Your task to perform on an android device: Open the Play Movies app and select the watchlist tab. Image 0: 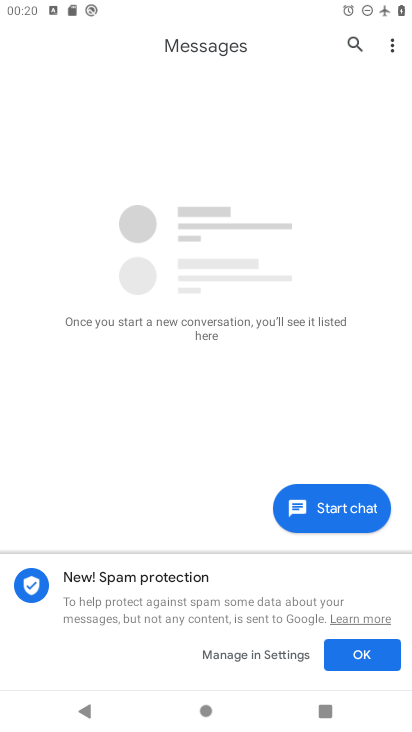
Step 0: press home button
Your task to perform on an android device: Open the Play Movies app and select the watchlist tab. Image 1: 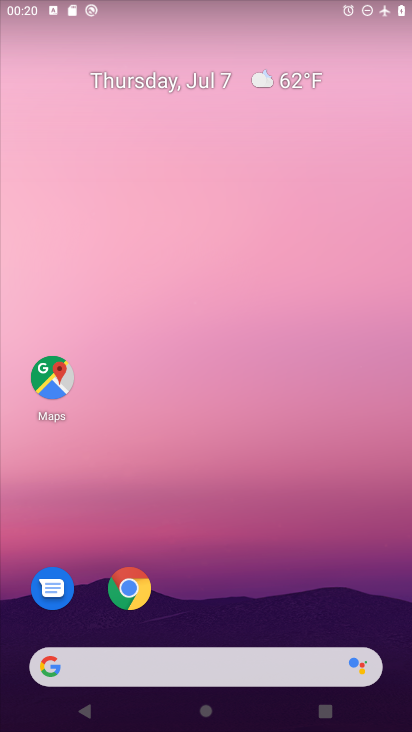
Step 1: drag from (388, 624) to (366, 64)
Your task to perform on an android device: Open the Play Movies app and select the watchlist tab. Image 2: 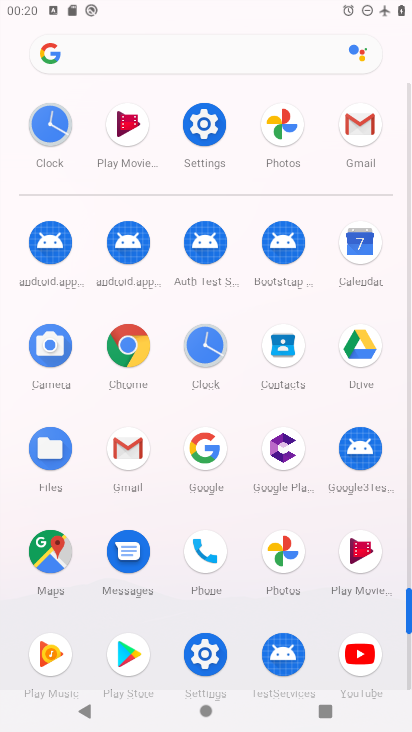
Step 2: click (361, 547)
Your task to perform on an android device: Open the Play Movies app and select the watchlist tab. Image 3: 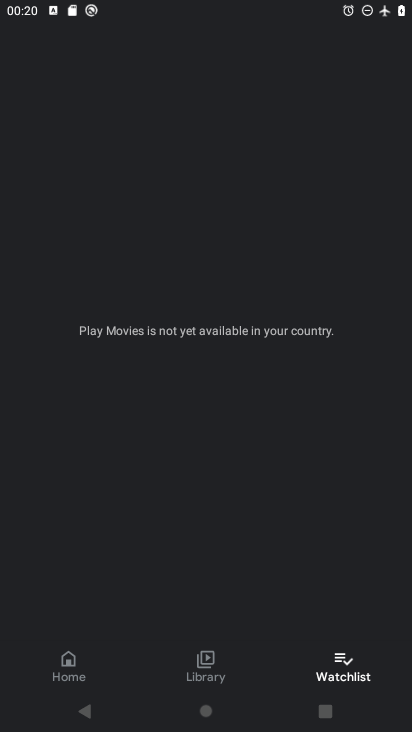
Step 3: task complete